Your task to perform on an android device: change timer sound Image 0: 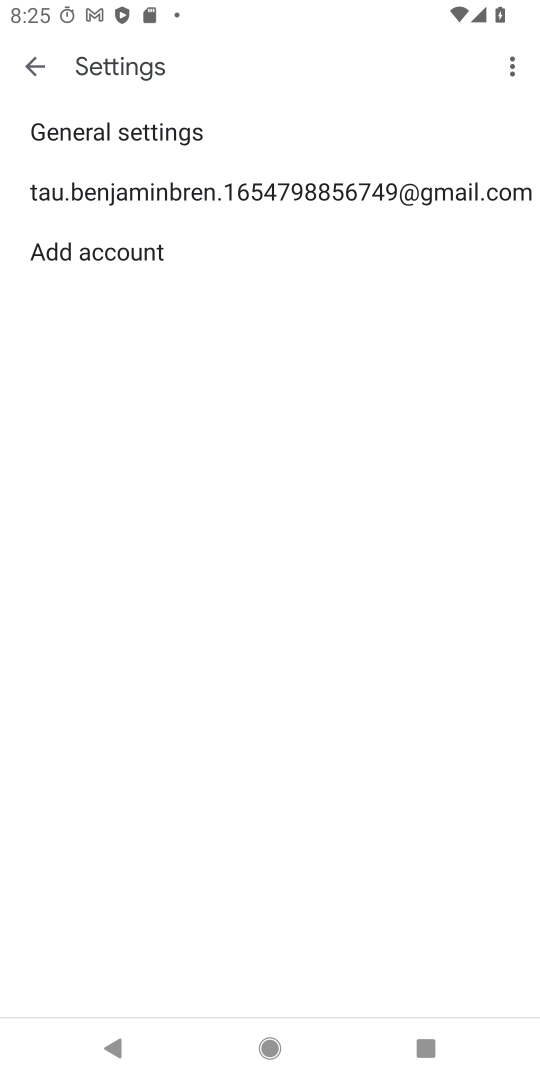
Step 0: press back button
Your task to perform on an android device: change timer sound Image 1: 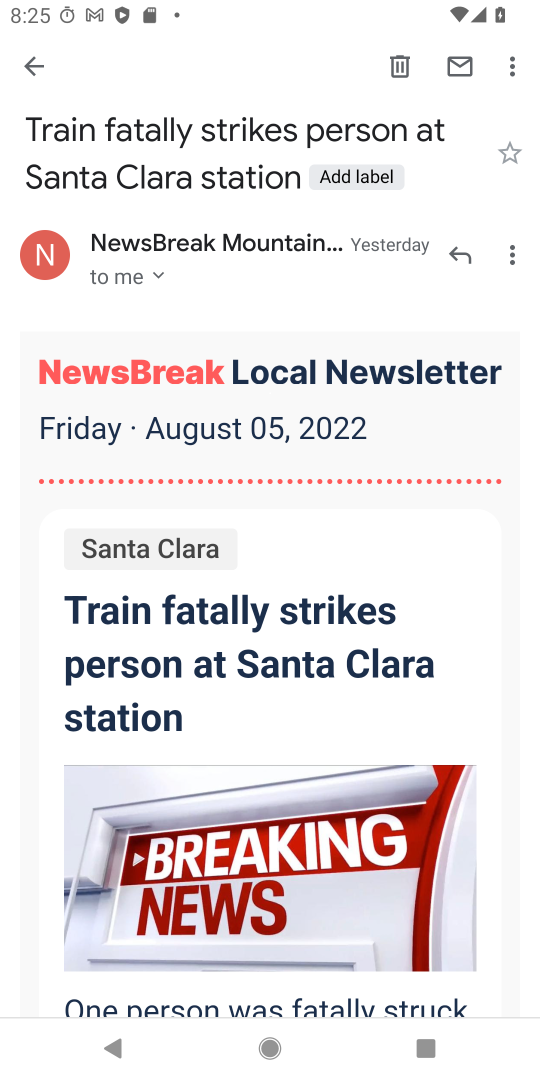
Step 1: press home button
Your task to perform on an android device: change timer sound Image 2: 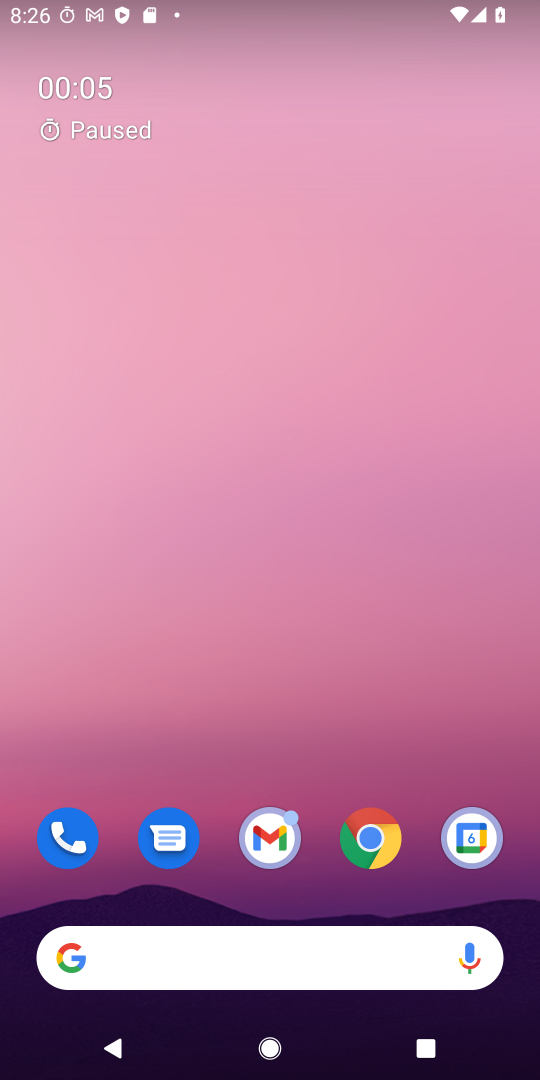
Step 2: drag from (212, 594) to (233, 30)
Your task to perform on an android device: change timer sound Image 3: 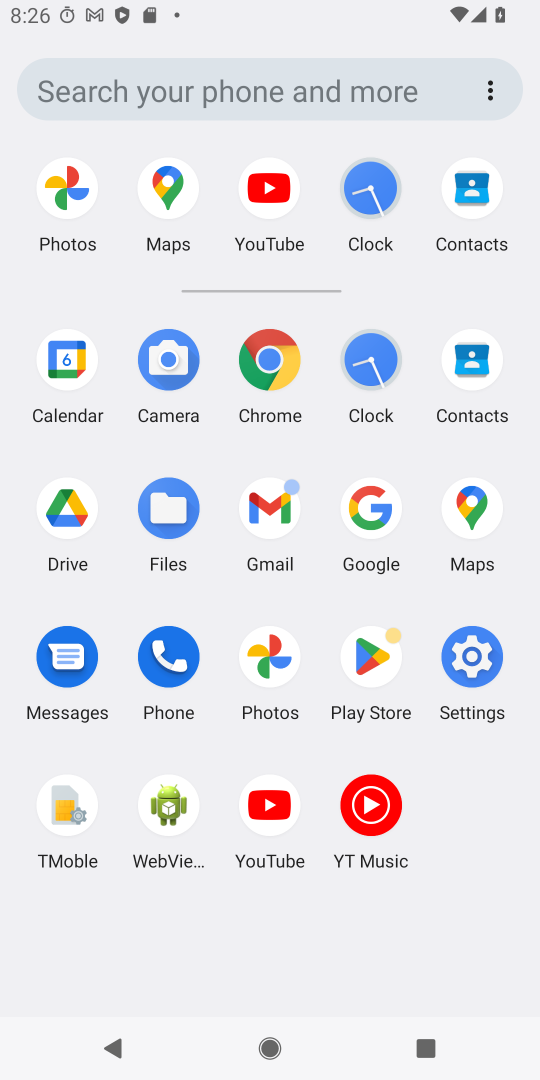
Step 3: click (492, 668)
Your task to perform on an android device: change timer sound Image 4: 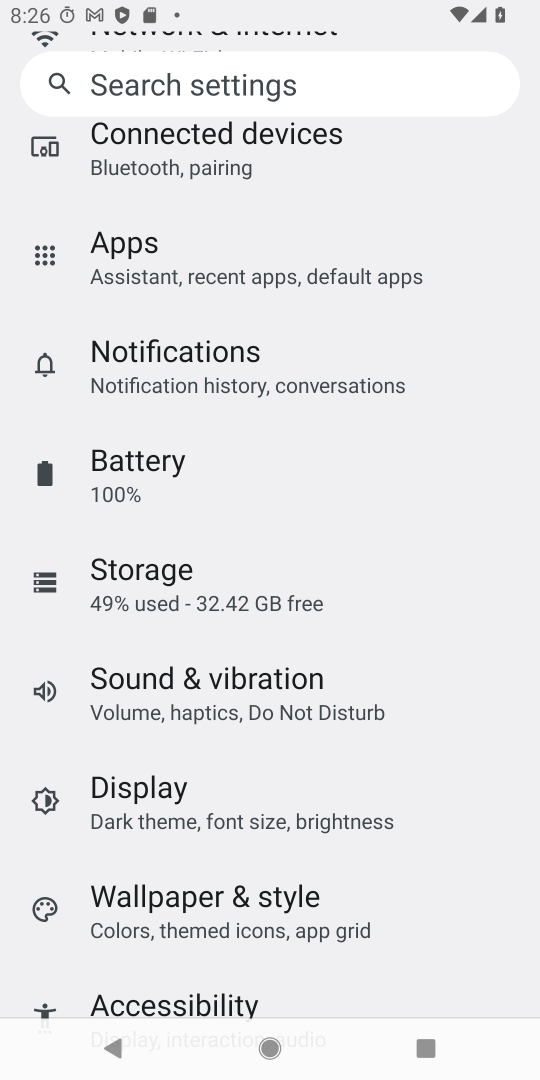
Step 4: press back button
Your task to perform on an android device: change timer sound Image 5: 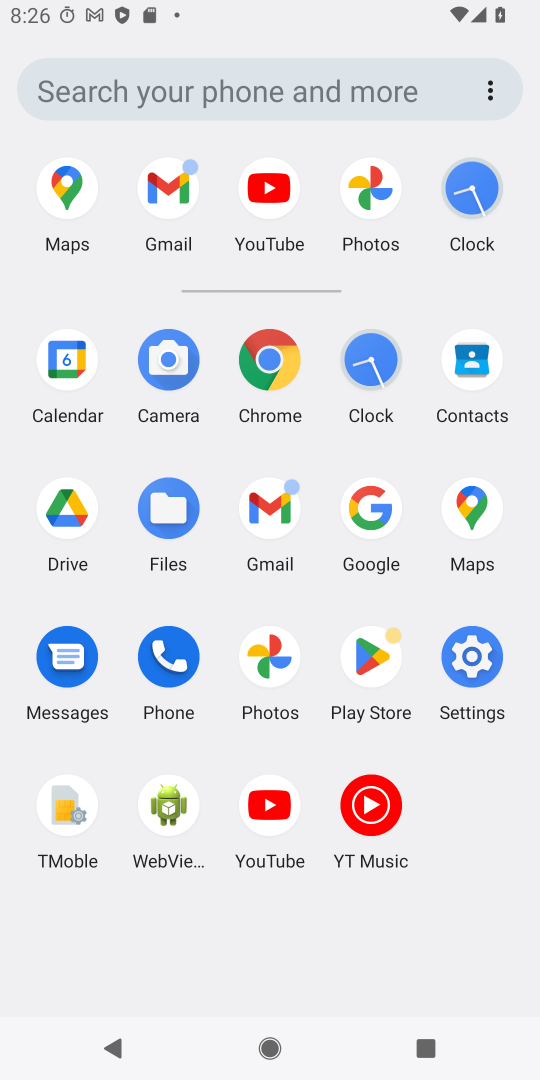
Step 5: click (362, 379)
Your task to perform on an android device: change timer sound Image 6: 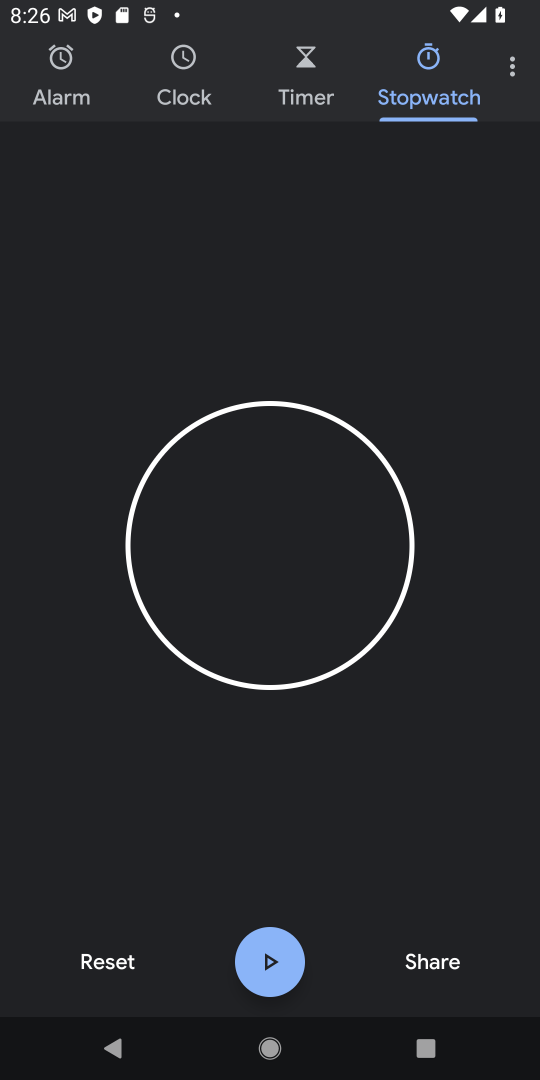
Step 6: click (518, 64)
Your task to perform on an android device: change timer sound Image 7: 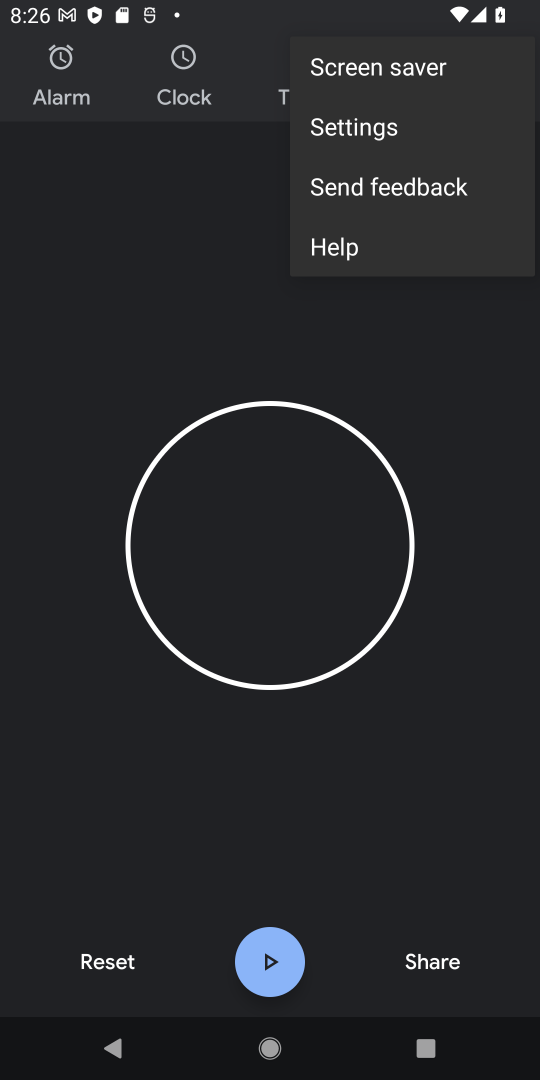
Step 7: click (386, 123)
Your task to perform on an android device: change timer sound Image 8: 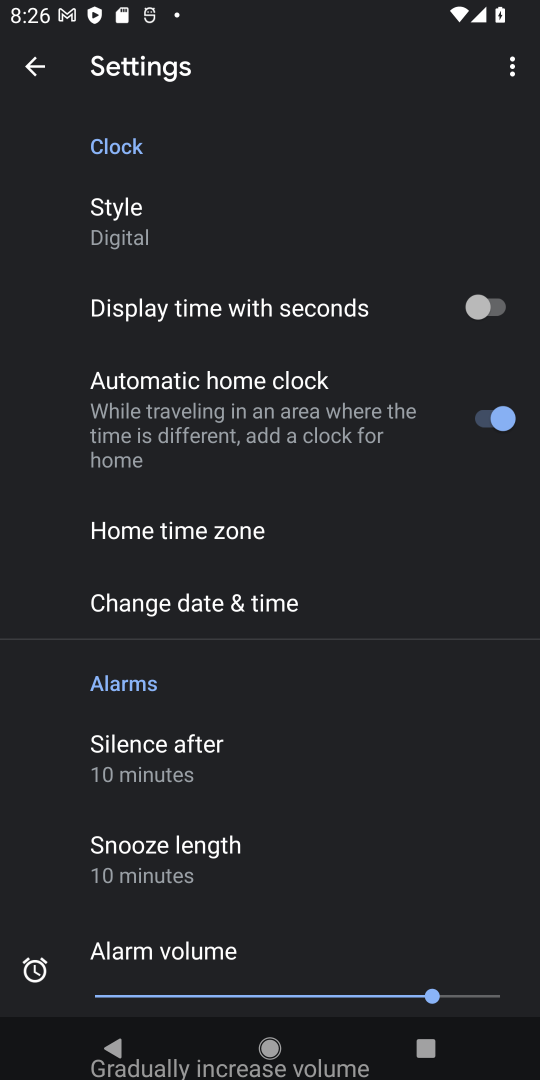
Step 8: drag from (249, 714) to (250, 298)
Your task to perform on an android device: change timer sound Image 9: 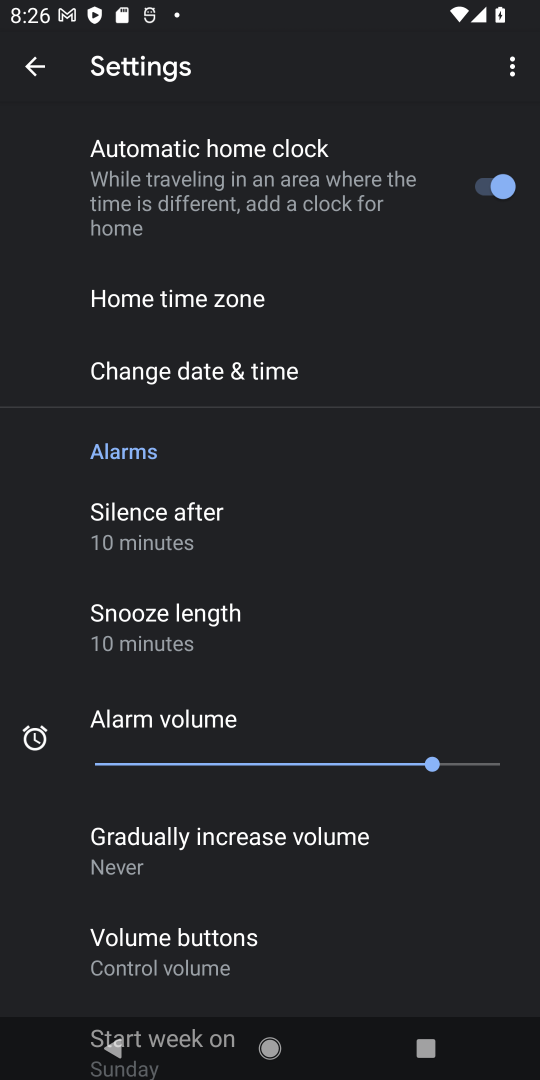
Step 9: drag from (266, 800) to (256, 485)
Your task to perform on an android device: change timer sound Image 10: 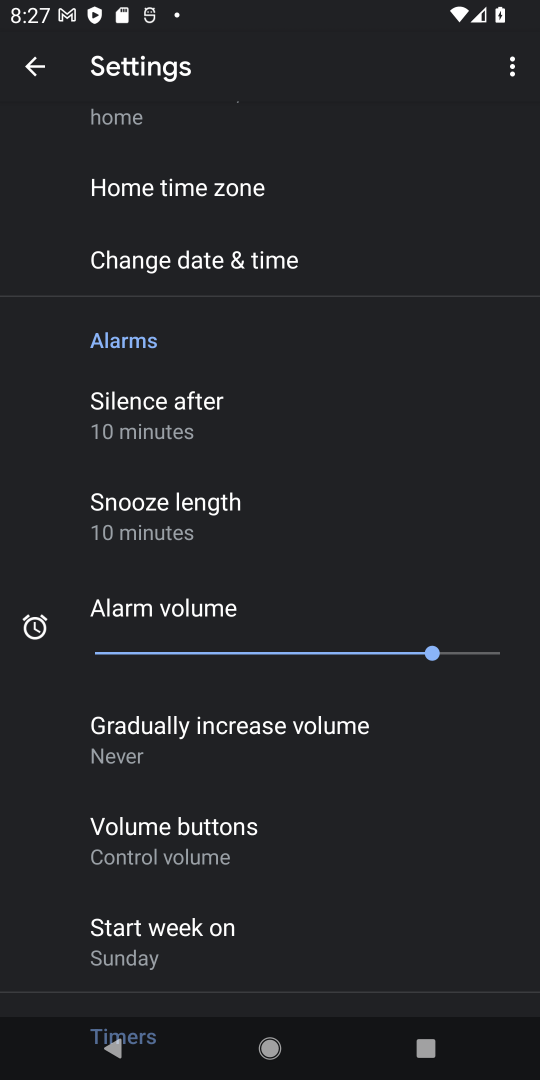
Step 10: drag from (254, 804) to (291, 509)
Your task to perform on an android device: change timer sound Image 11: 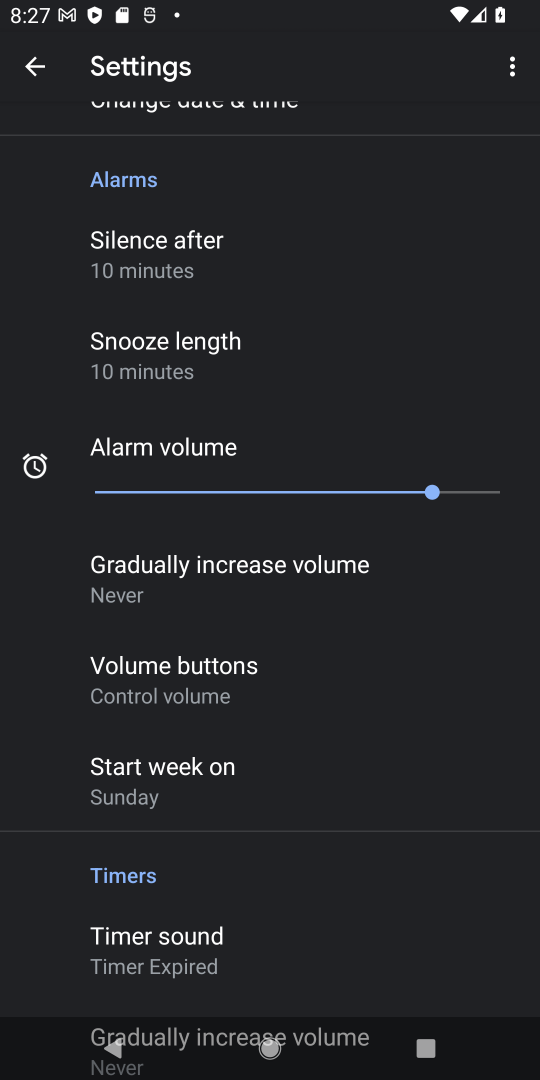
Step 11: click (141, 956)
Your task to perform on an android device: change timer sound Image 12: 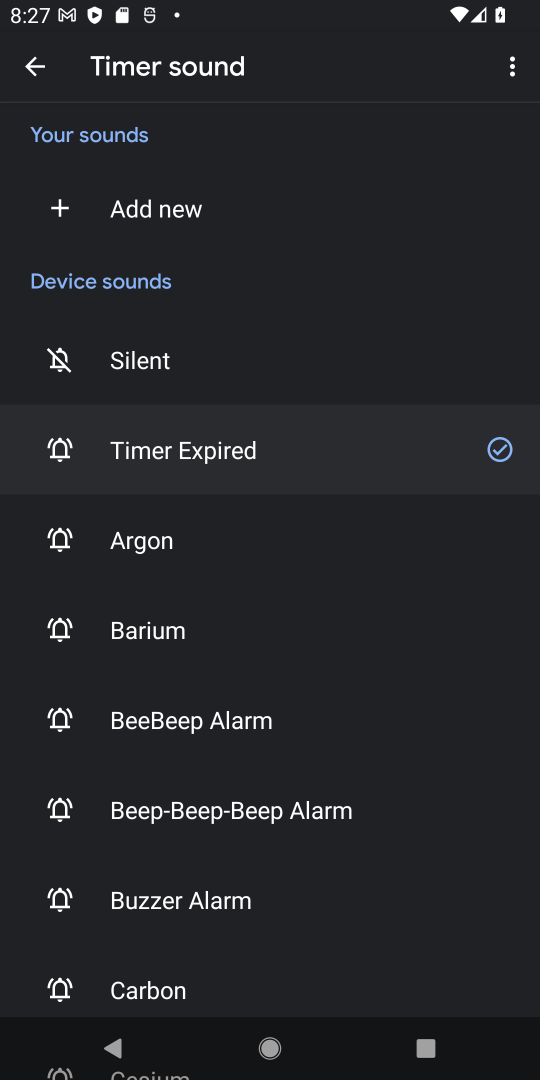
Step 12: click (144, 544)
Your task to perform on an android device: change timer sound Image 13: 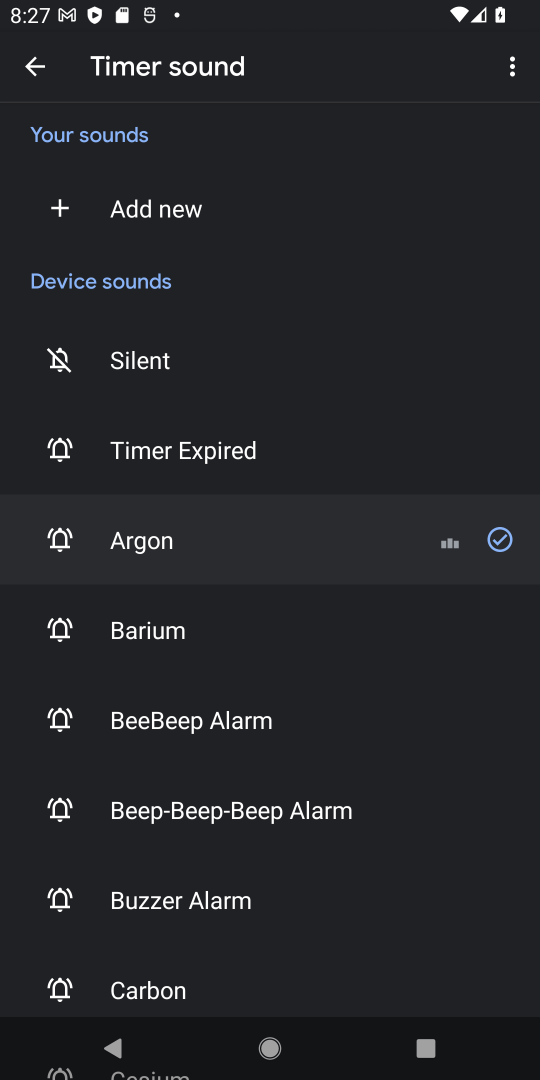
Step 13: task complete